Your task to perform on an android device: change text size in settings app Image 0: 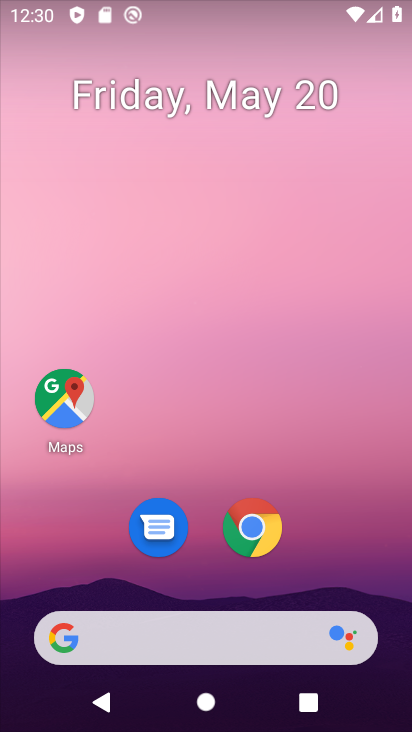
Step 0: drag from (387, 675) to (334, 238)
Your task to perform on an android device: change text size in settings app Image 1: 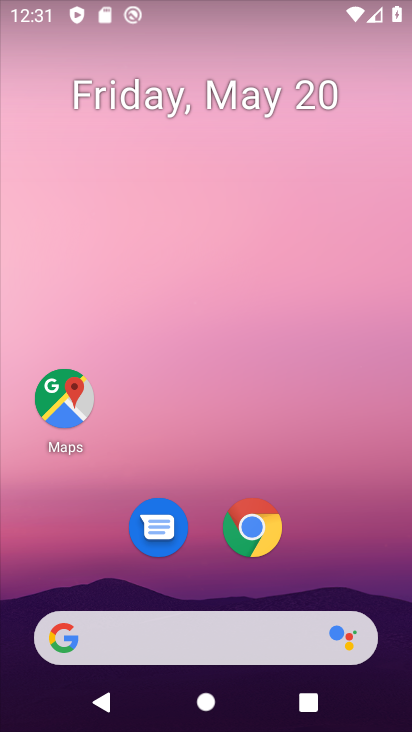
Step 1: drag from (388, 484) to (352, 129)
Your task to perform on an android device: change text size in settings app Image 2: 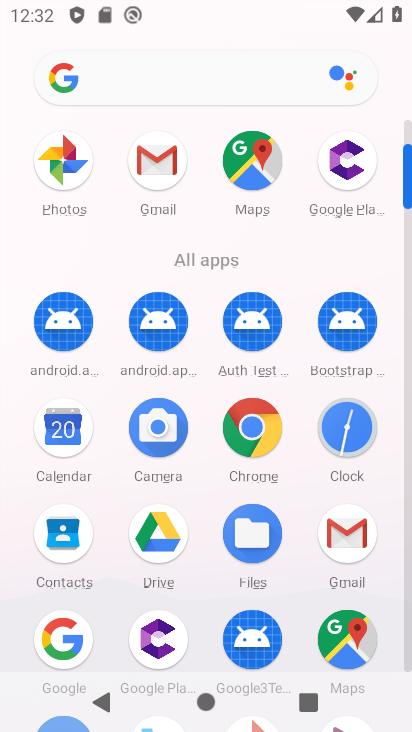
Step 2: drag from (200, 606) to (145, 348)
Your task to perform on an android device: change text size in settings app Image 3: 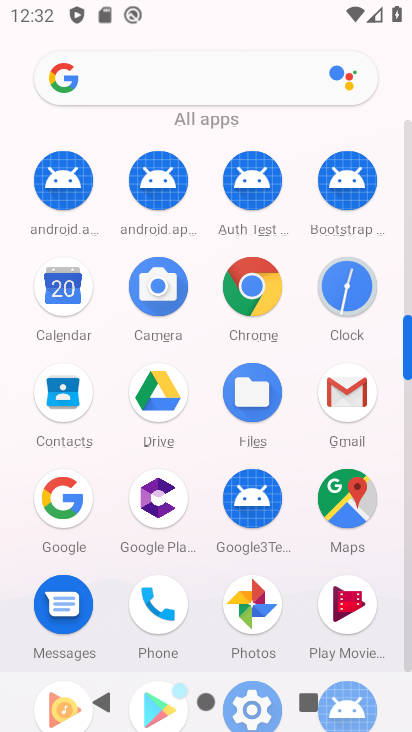
Step 3: drag from (204, 594) to (189, 433)
Your task to perform on an android device: change text size in settings app Image 4: 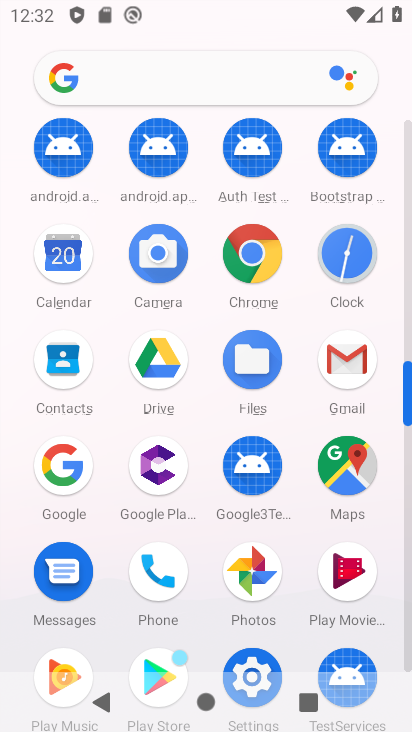
Step 4: click (248, 653)
Your task to perform on an android device: change text size in settings app Image 5: 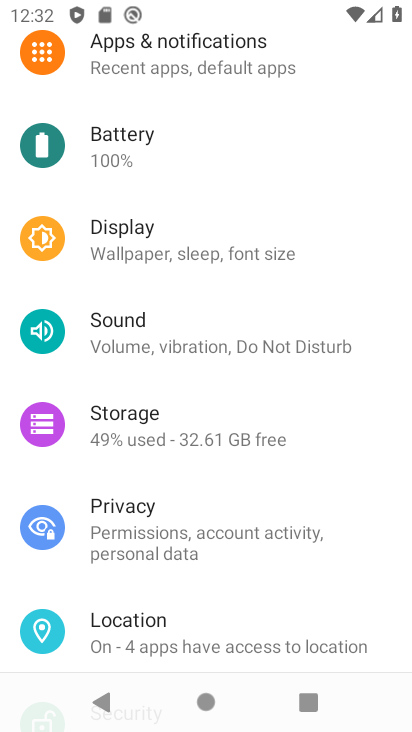
Step 5: drag from (378, 628) to (377, 328)
Your task to perform on an android device: change text size in settings app Image 6: 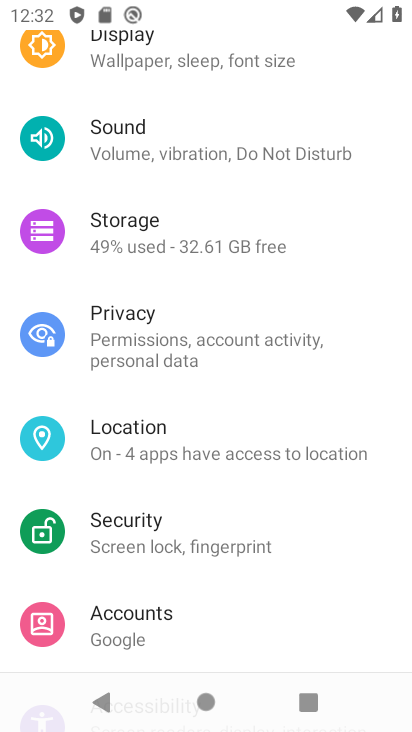
Step 6: drag from (378, 632) to (329, 255)
Your task to perform on an android device: change text size in settings app Image 7: 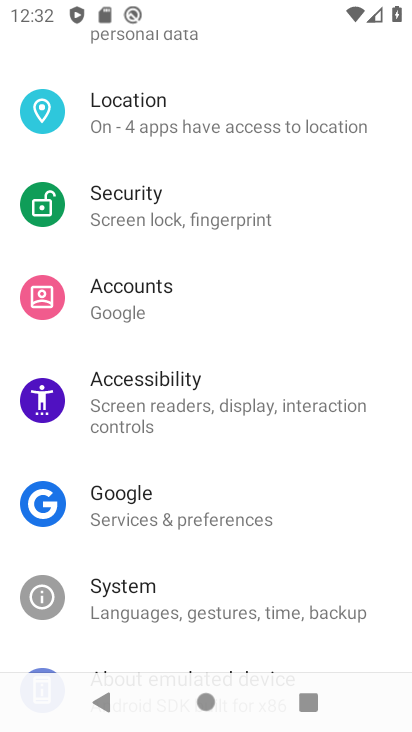
Step 7: drag from (366, 642) to (356, 172)
Your task to perform on an android device: change text size in settings app Image 8: 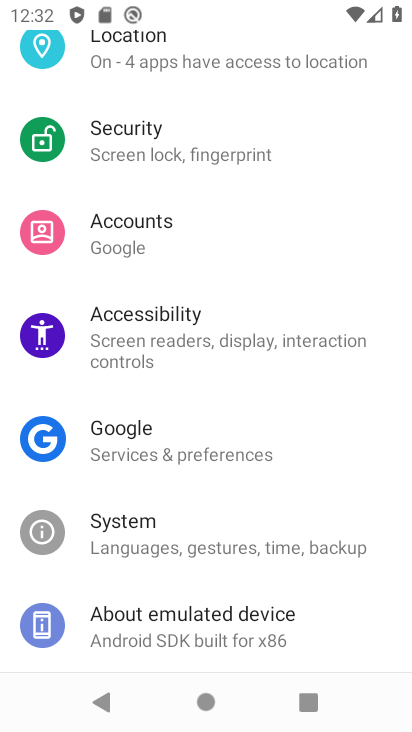
Step 8: drag from (300, 151) to (335, 497)
Your task to perform on an android device: change text size in settings app Image 9: 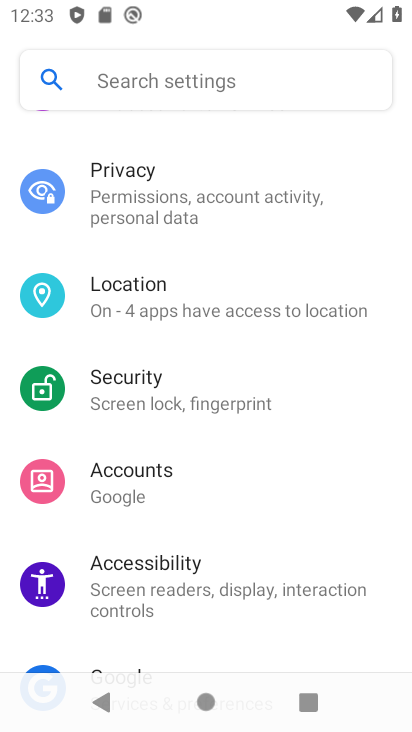
Step 9: click (367, 526)
Your task to perform on an android device: change text size in settings app Image 10: 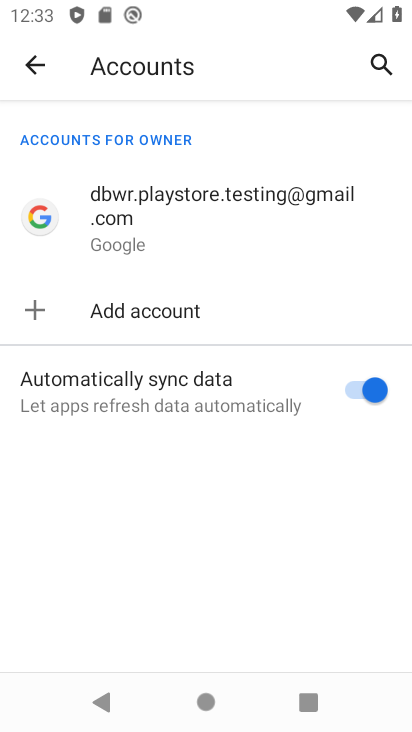
Step 10: click (31, 65)
Your task to perform on an android device: change text size in settings app Image 11: 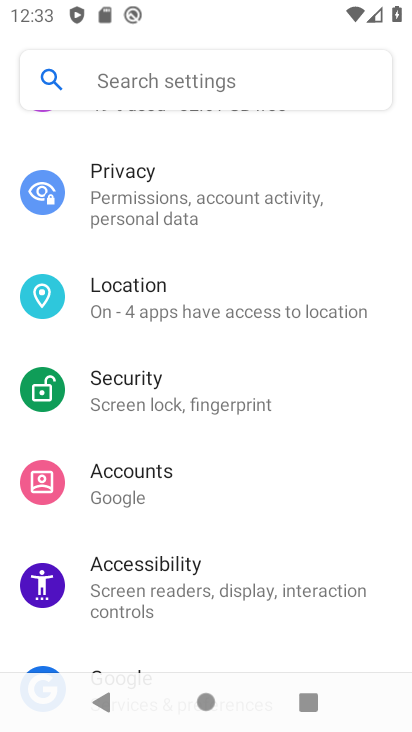
Step 11: drag from (339, 153) to (363, 587)
Your task to perform on an android device: change text size in settings app Image 12: 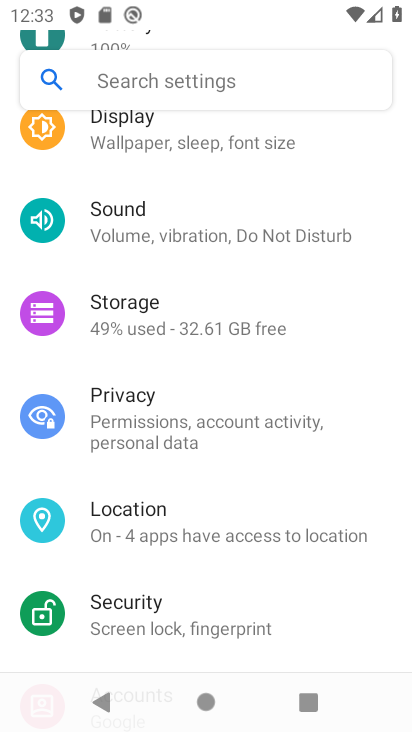
Step 12: click (199, 133)
Your task to perform on an android device: change text size in settings app Image 13: 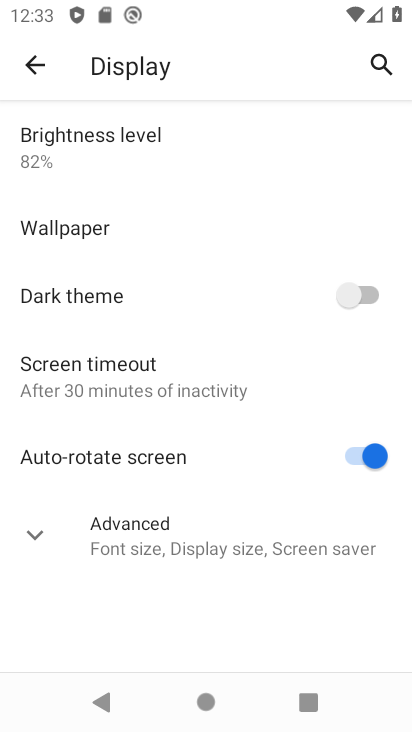
Step 13: drag from (259, 227) to (318, 563)
Your task to perform on an android device: change text size in settings app Image 14: 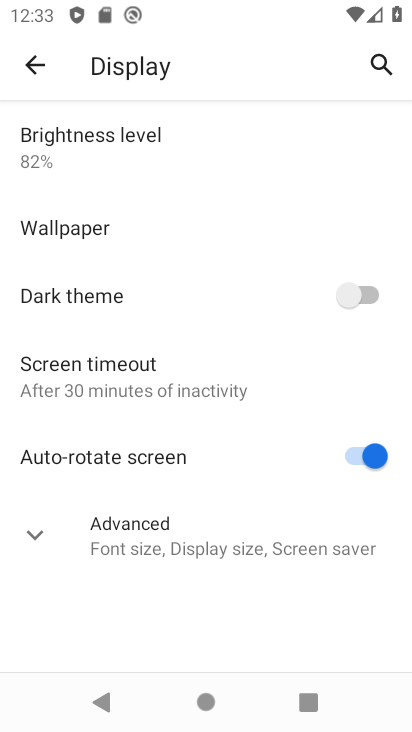
Step 14: drag from (261, 307) to (284, 497)
Your task to perform on an android device: change text size in settings app Image 15: 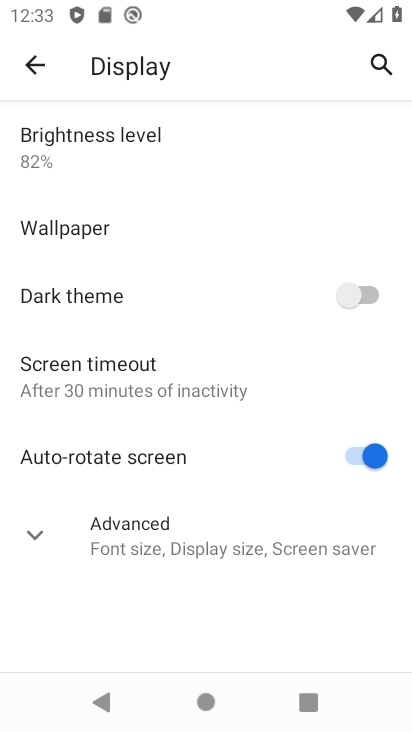
Step 15: click (44, 538)
Your task to perform on an android device: change text size in settings app Image 16: 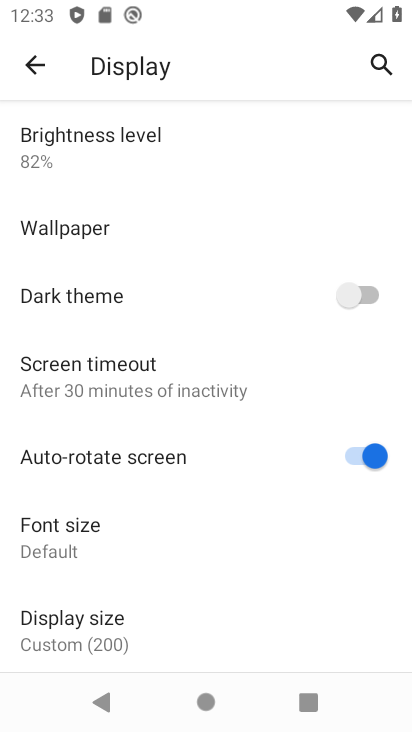
Step 16: drag from (187, 562) to (169, 452)
Your task to perform on an android device: change text size in settings app Image 17: 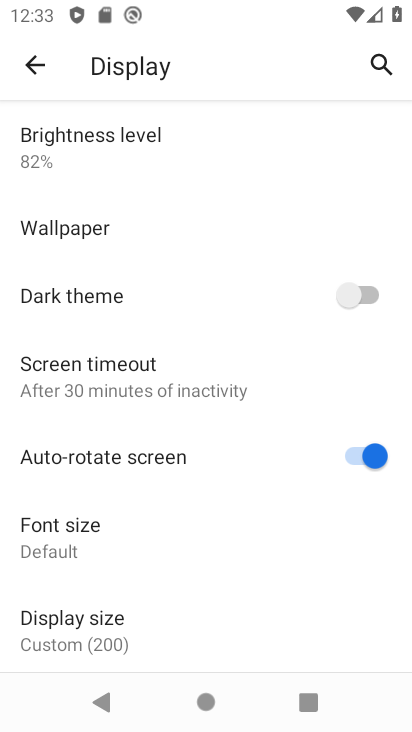
Step 17: click (46, 540)
Your task to perform on an android device: change text size in settings app Image 18: 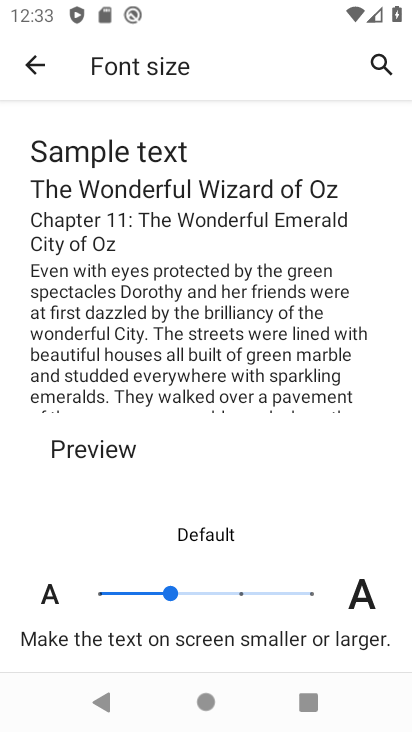
Step 18: click (196, 592)
Your task to perform on an android device: change text size in settings app Image 19: 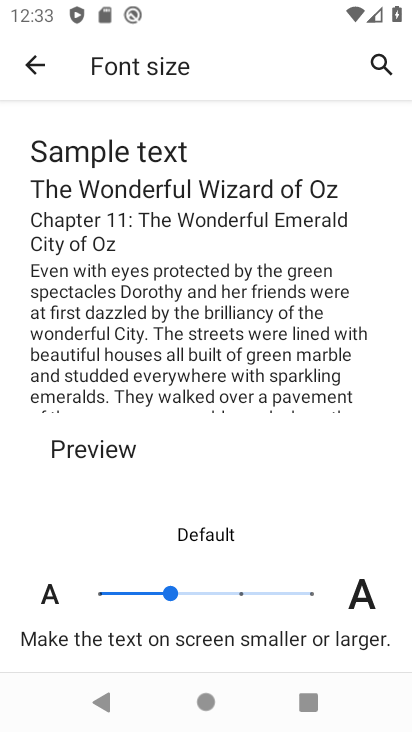
Step 19: click (196, 592)
Your task to perform on an android device: change text size in settings app Image 20: 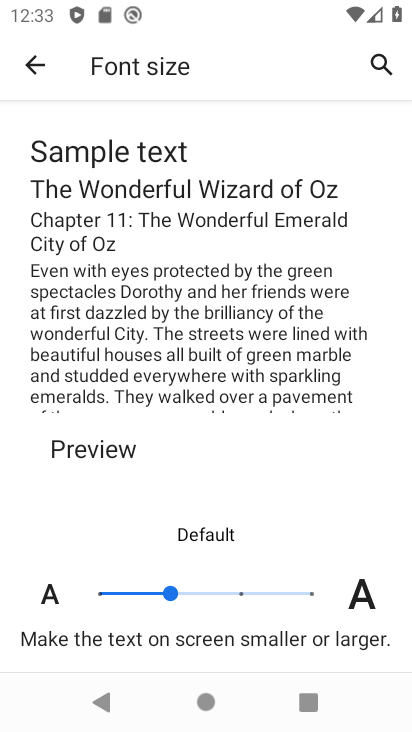
Step 20: click (153, 594)
Your task to perform on an android device: change text size in settings app Image 21: 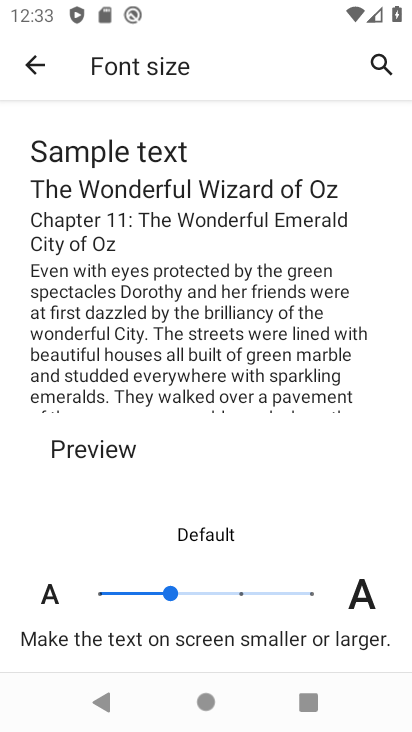
Step 21: click (165, 593)
Your task to perform on an android device: change text size in settings app Image 22: 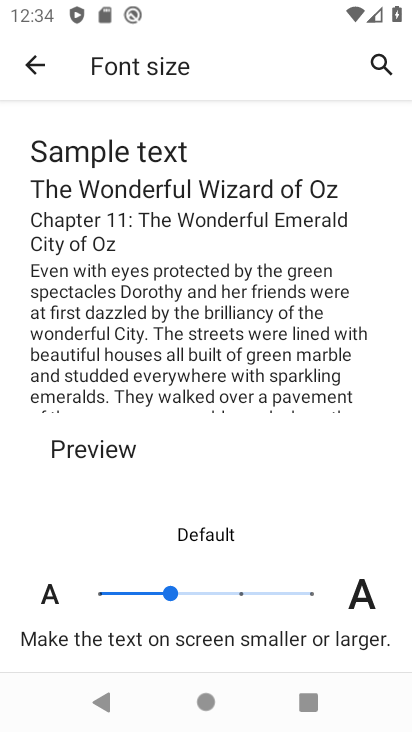
Step 22: click (140, 592)
Your task to perform on an android device: change text size in settings app Image 23: 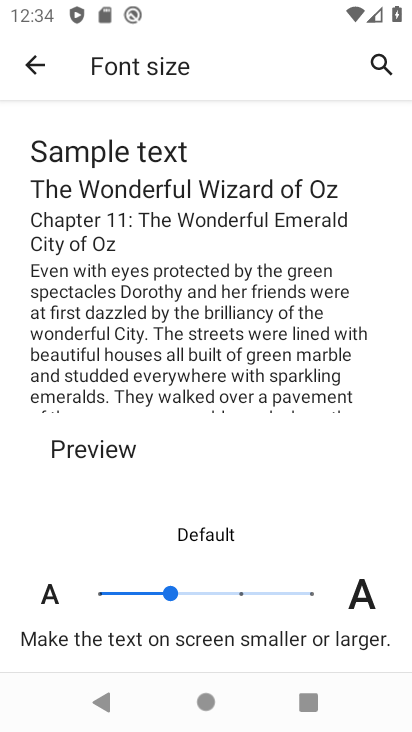
Step 23: click (140, 592)
Your task to perform on an android device: change text size in settings app Image 24: 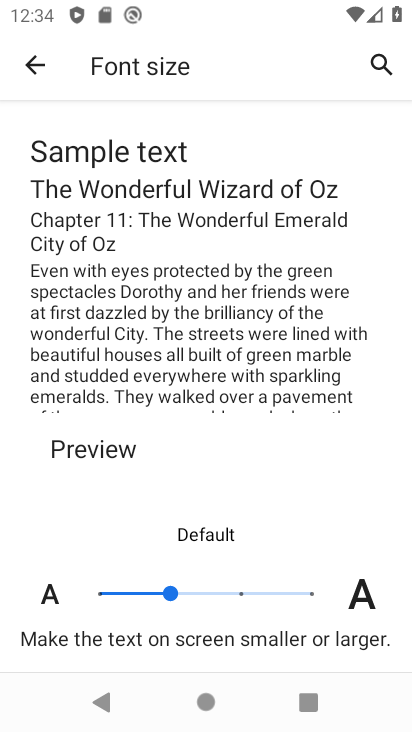
Step 24: click (188, 415)
Your task to perform on an android device: change text size in settings app Image 25: 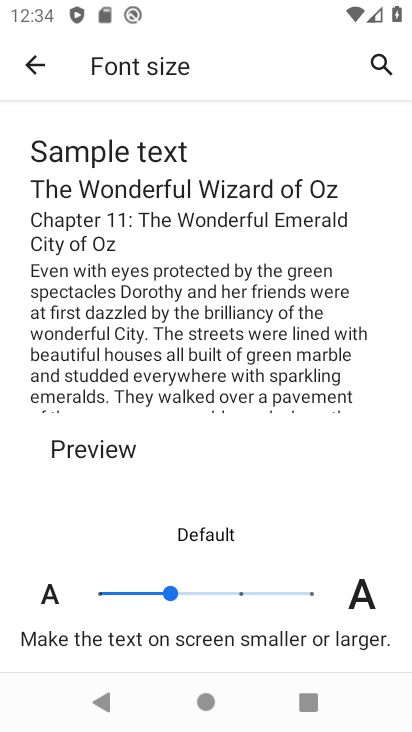
Step 25: click (162, 589)
Your task to perform on an android device: change text size in settings app Image 26: 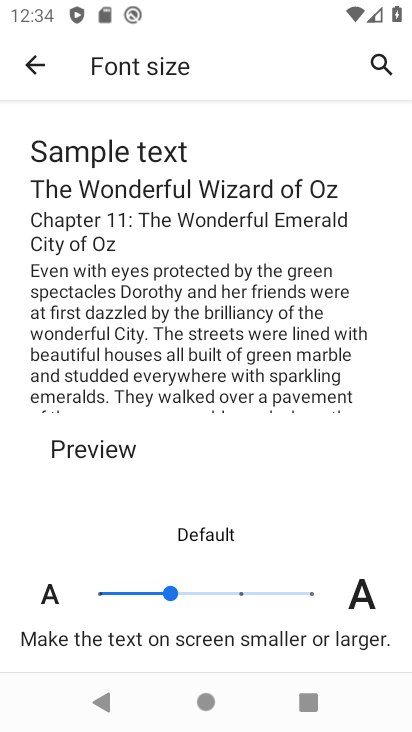
Step 26: click (250, 591)
Your task to perform on an android device: change text size in settings app Image 27: 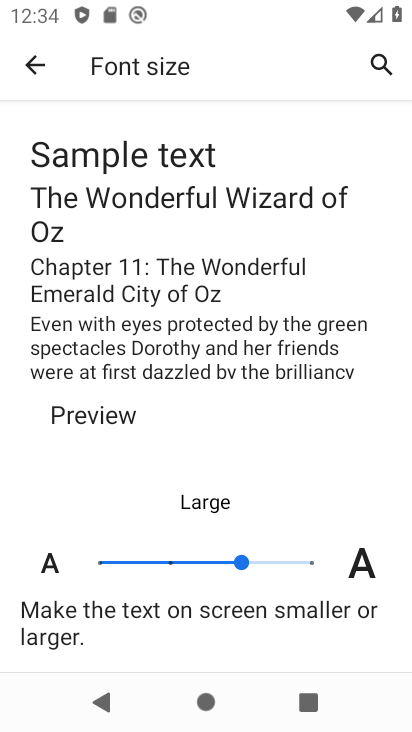
Step 27: click (115, 560)
Your task to perform on an android device: change text size in settings app Image 28: 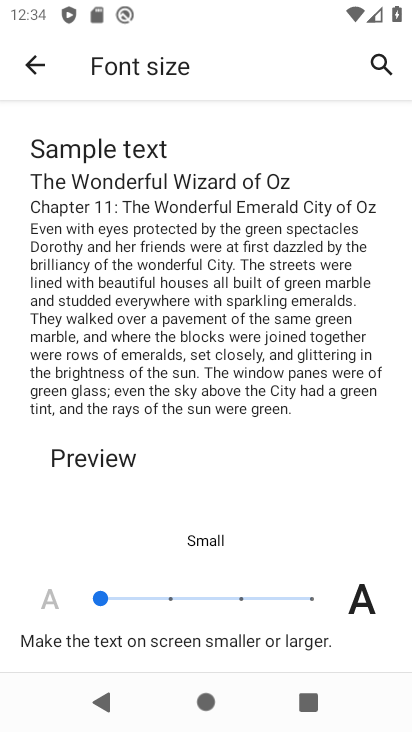
Step 28: task complete